Your task to perform on an android device: Search for Italian restaurants on Maps Image 0: 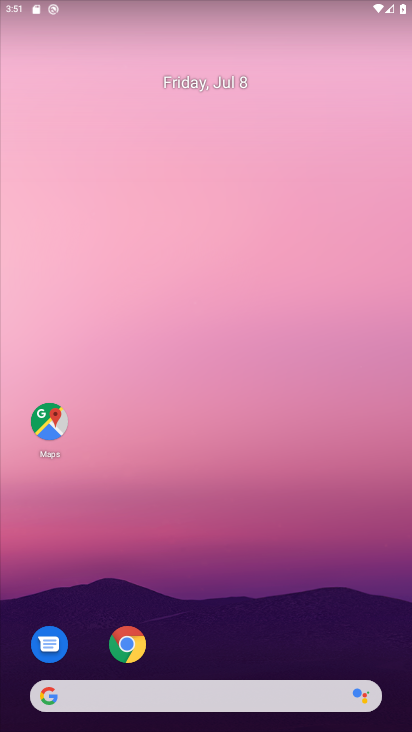
Step 0: click (51, 419)
Your task to perform on an android device: Search for Italian restaurants on Maps Image 1: 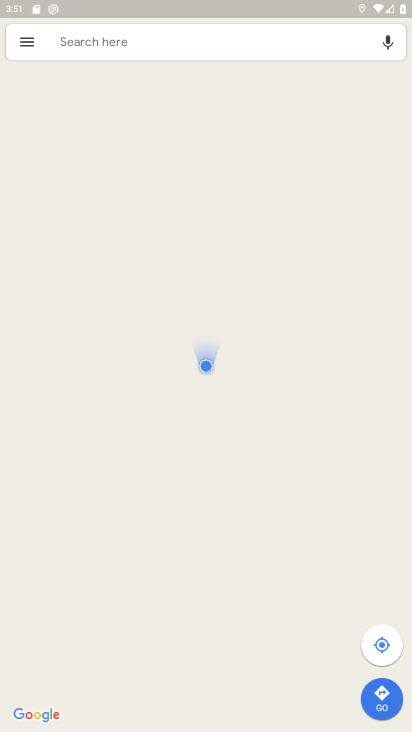
Step 1: click (92, 41)
Your task to perform on an android device: Search for Italian restaurants on Maps Image 2: 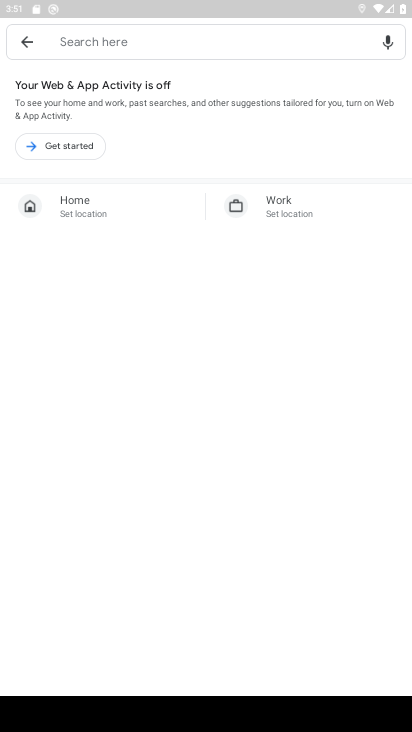
Step 2: type "italian restaurants"
Your task to perform on an android device: Search for Italian restaurants on Maps Image 3: 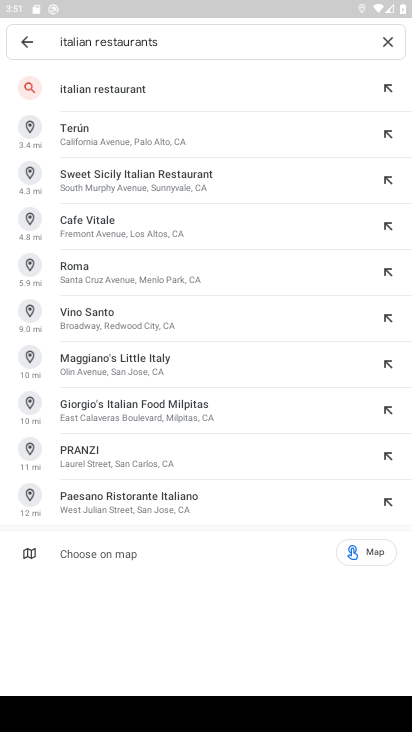
Step 3: click (102, 94)
Your task to perform on an android device: Search for Italian restaurants on Maps Image 4: 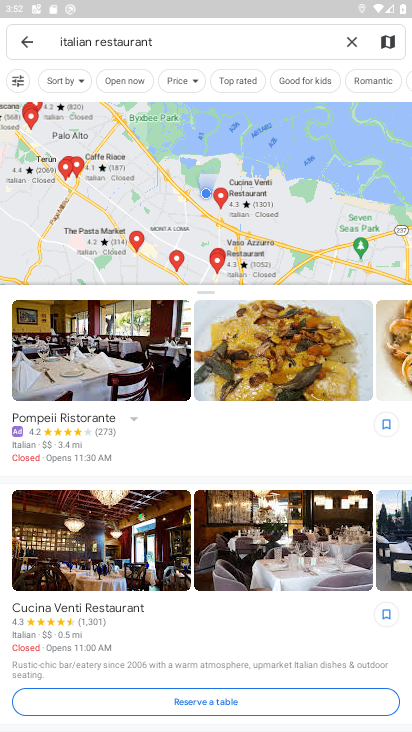
Step 4: task complete